Your task to perform on an android device: turn on sleep mode Image 0: 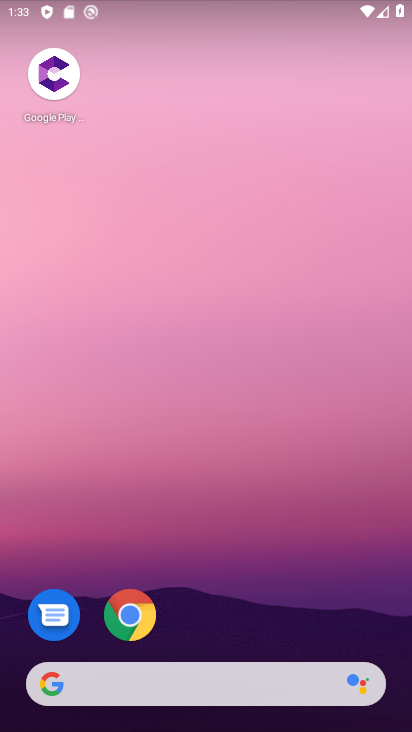
Step 0: drag from (347, 626) to (323, 193)
Your task to perform on an android device: turn on sleep mode Image 1: 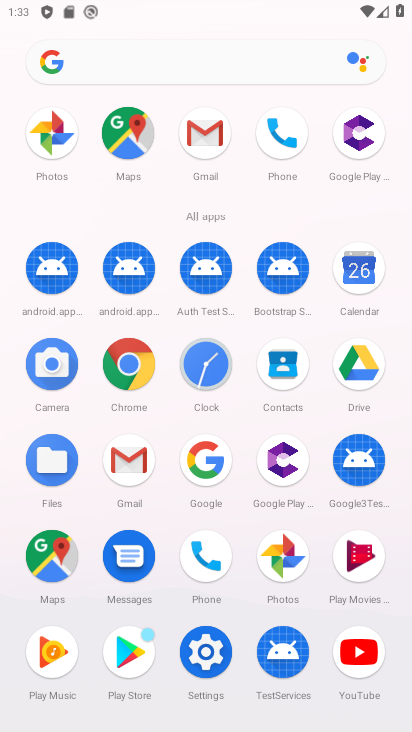
Step 1: click (215, 646)
Your task to perform on an android device: turn on sleep mode Image 2: 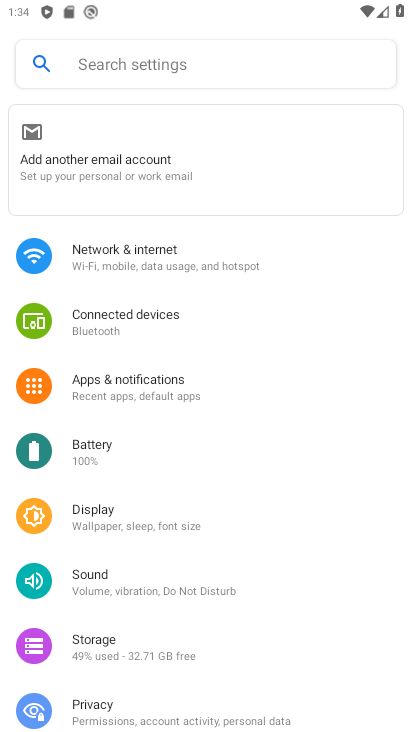
Step 2: drag from (240, 618) to (264, 297)
Your task to perform on an android device: turn on sleep mode Image 3: 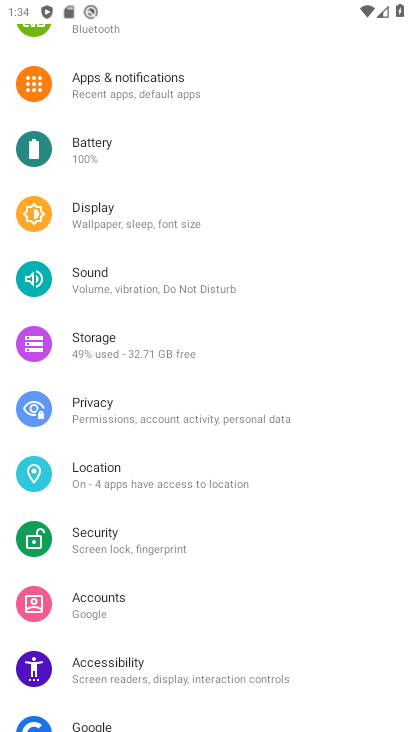
Step 3: drag from (258, 193) to (279, 628)
Your task to perform on an android device: turn on sleep mode Image 4: 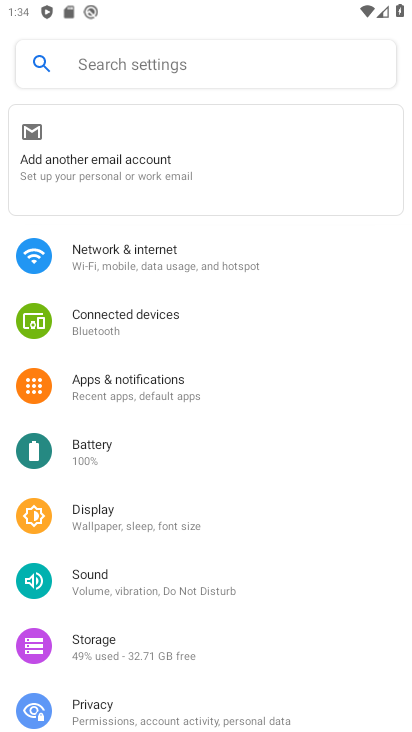
Step 4: click (212, 54)
Your task to perform on an android device: turn on sleep mode Image 5: 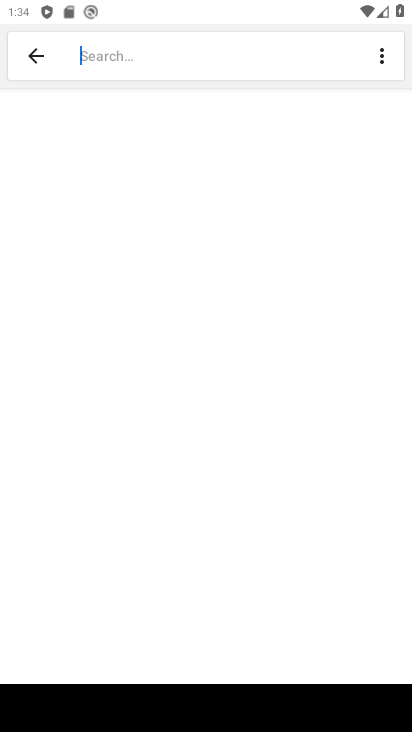
Step 5: type "sleep mode"
Your task to perform on an android device: turn on sleep mode Image 6: 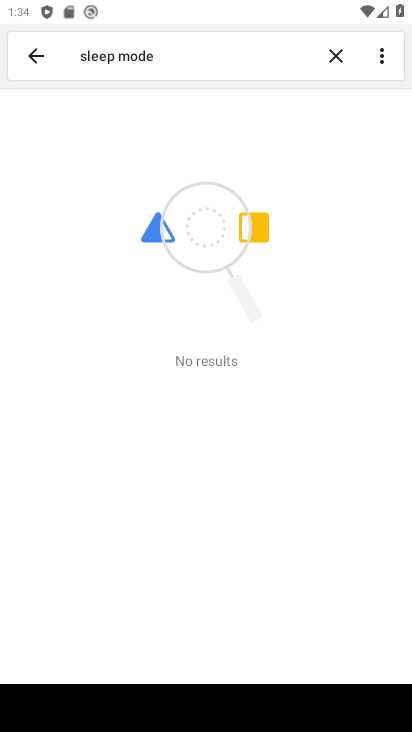
Step 6: task complete